Your task to perform on an android device: Open the phone app and click the voicemail tab. Image 0: 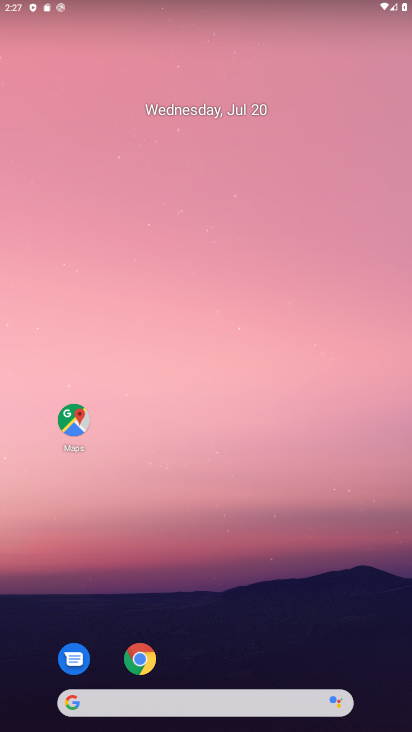
Step 0: drag from (251, 660) to (331, 111)
Your task to perform on an android device: Open the phone app and click the voicemail tab. Image 1: 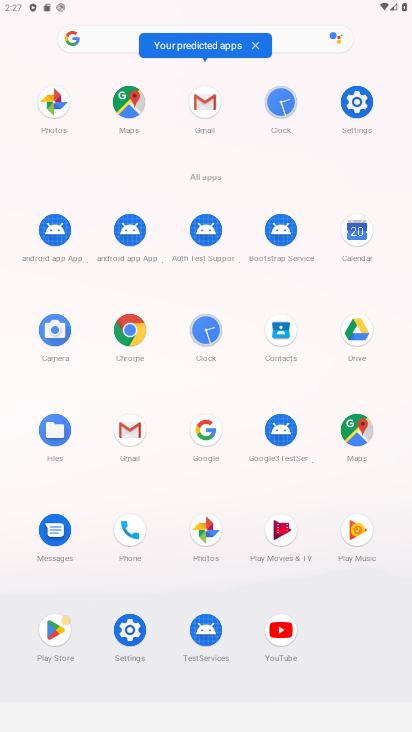
Step 1: click (126, 529)
Your task to perform on an android device: Open the phone app and click the voicemail tab. Image 2: 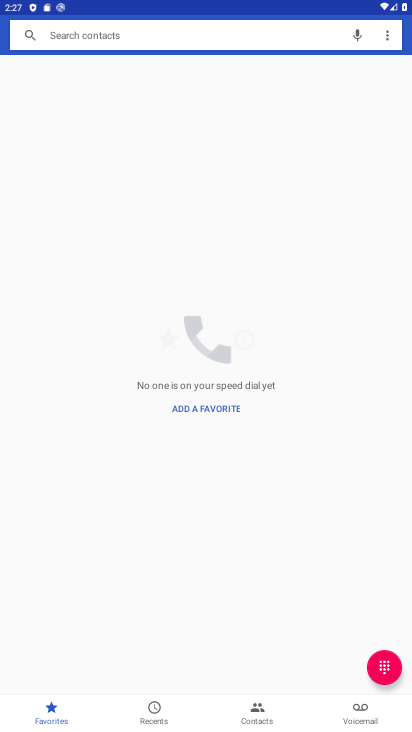
Step 2: click (356, 715)
Your task to perform on an android device: Open the phone app and click the voicemail tab. Image 3: 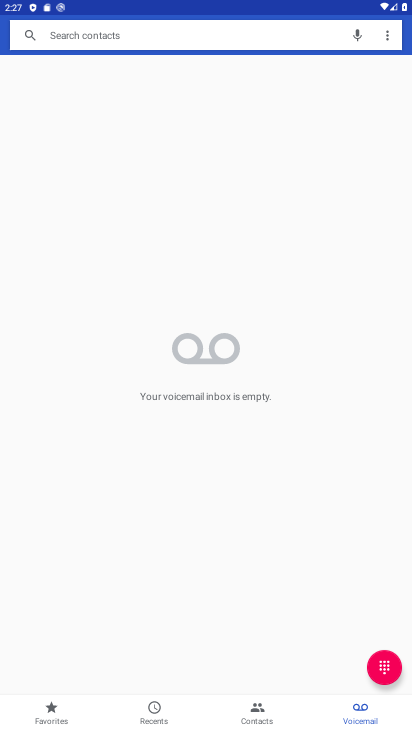
Step 3: task complete